Your task to perform on an android device: Go to battery settings Image 0: 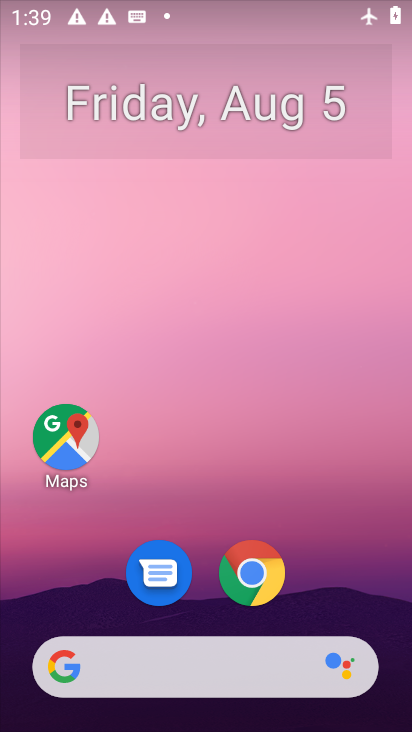
Step 0: press home button
Your task to perform on an android device: Go to battery settings Image 1: 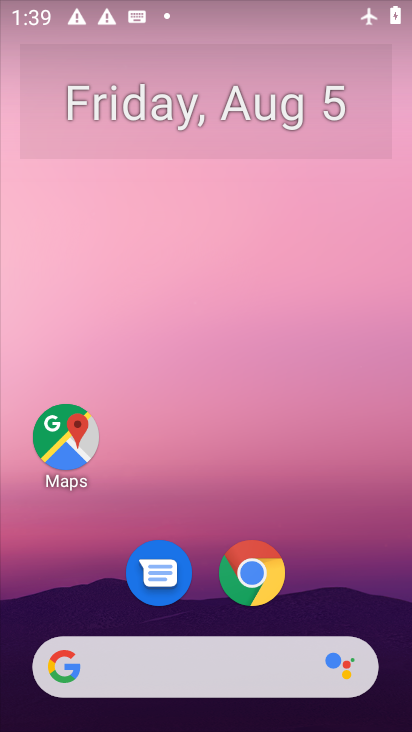
Step 1: drag from (367, 609) to (362, 267)
Your task to perform on an android device: Go to battery settings Image 2: 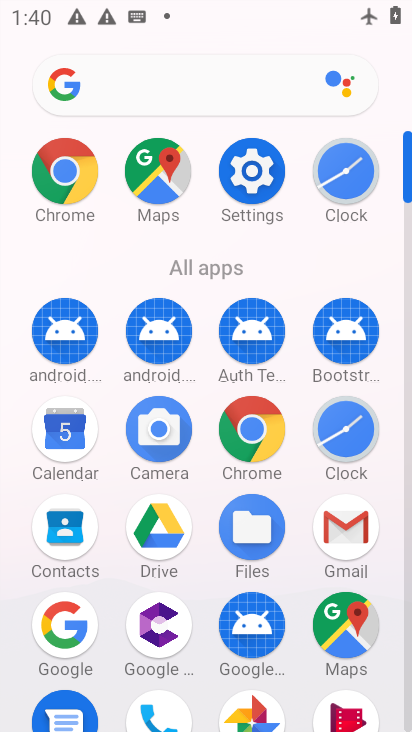
Step 2: click (262, 175)
Your task to perform on an android device: Go to battery settings Image 3: 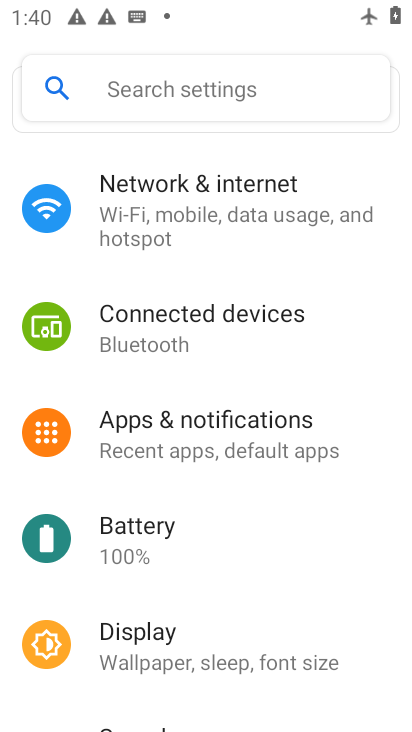
Step 3: drag from (351, 371) to (351, 301)
Your task to perform on an android device: Go to battery settings Image 4: 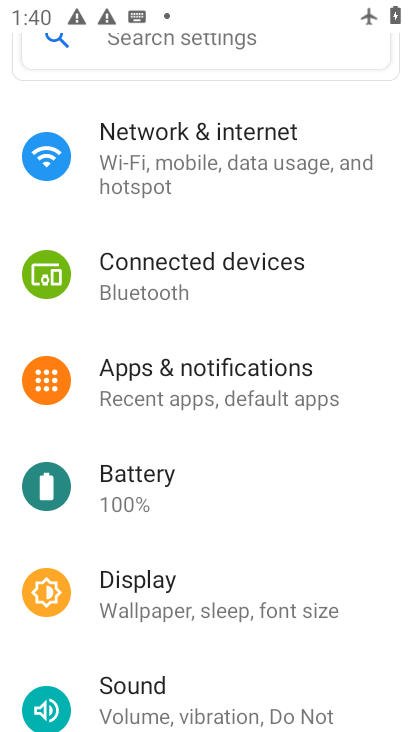
Step 4: drag from (351, 381) to (351, 292)
Your task to perform on an android device: Go to battery settings Image 5: 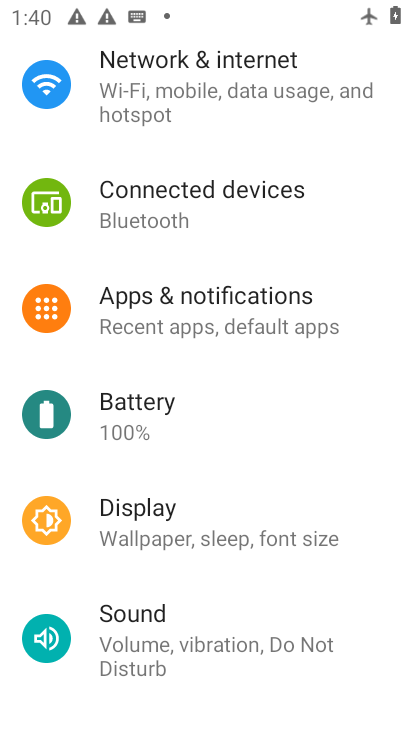
Step 5: drag from (351, 406) to (351, 316)
Your task to perform on an android device: Go to battery settings Image 6: 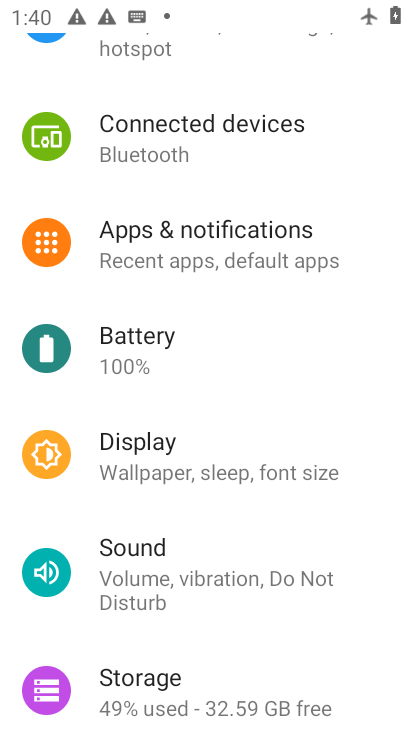
Step 6: drag from (355, 419) to (372, 312)
Your task to perform on an android device: Go to battery settings Image 7: 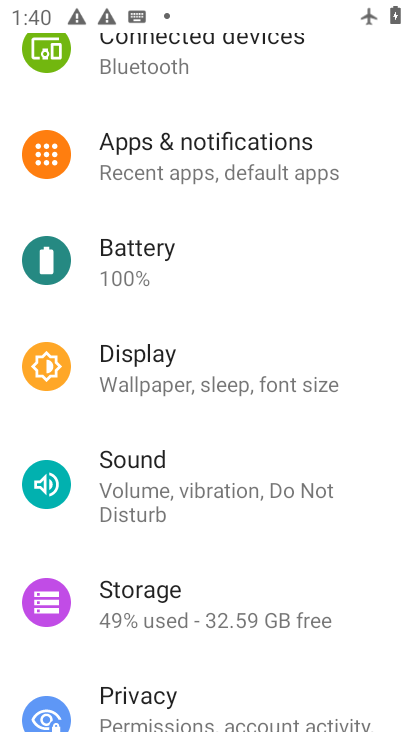
Step 7: click (197, 292)
Your task to perform on an android device: Go to battery settings Image 8: 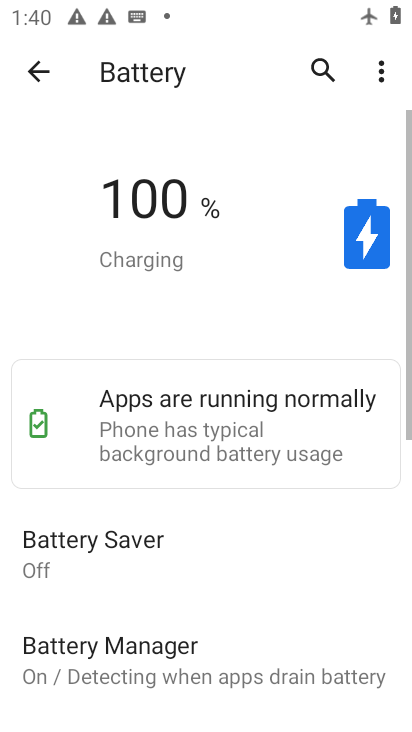
Step 8: task complete